Your task to perform on an android device: open sync settings in chrome Image 0: 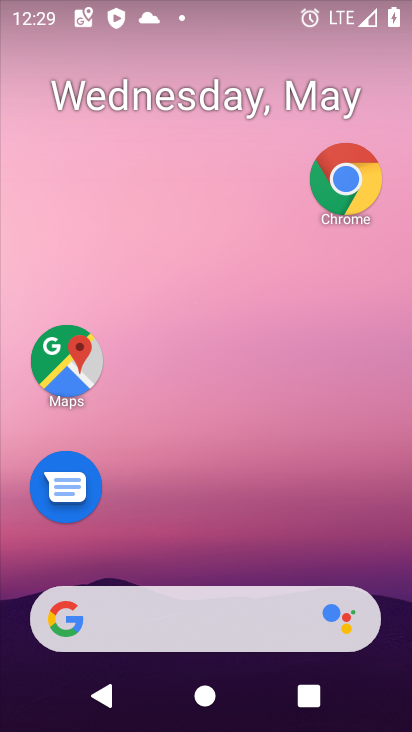
Step 0: click (289, 151)
Your task to perform on an android device: open sync settings in chrome Image 1: 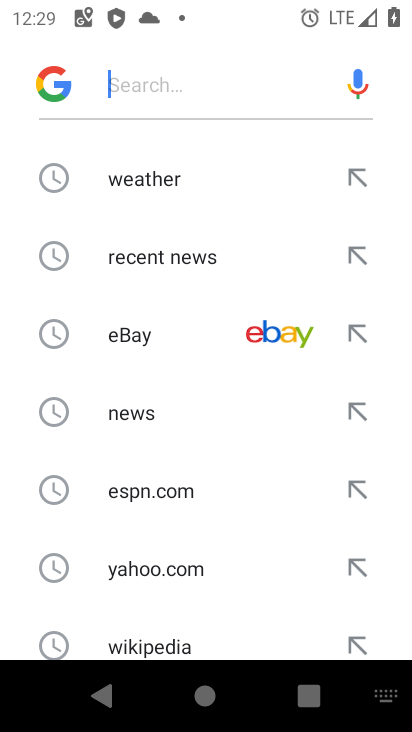
Step 1: press home button
Your task to perform on an android device: open sync settings in chrome Image 2: 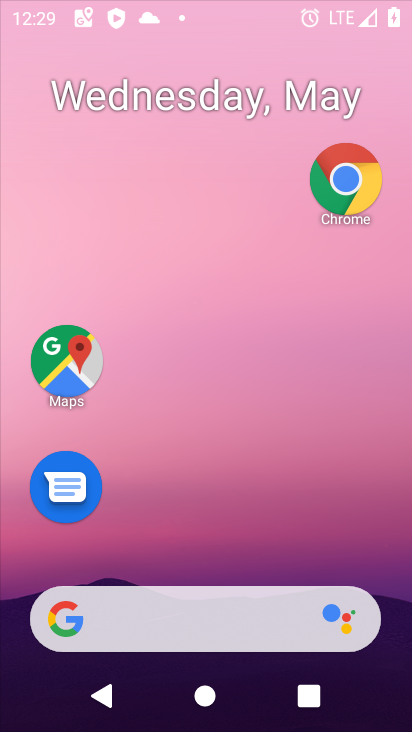
Step 2: drag from (157, 573) to (260, 97)
Your task to perform on an android device: open sync settings in chrome Image 3: 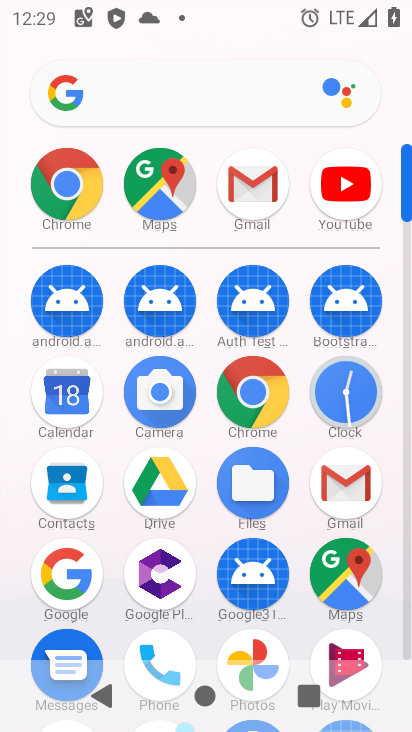
Step 3: click (60, 188)
Your task to perform on an android device: open sync settings in chrome Image 4: 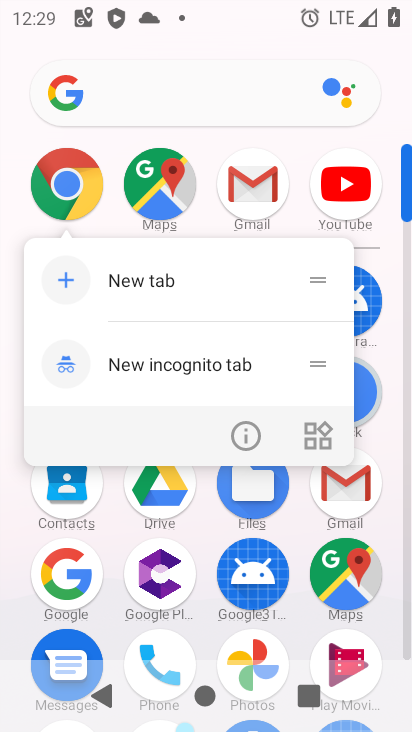
Step 4: click (240, 424)
Your task to perform on an android device: open sync settings in chrome Image 5: 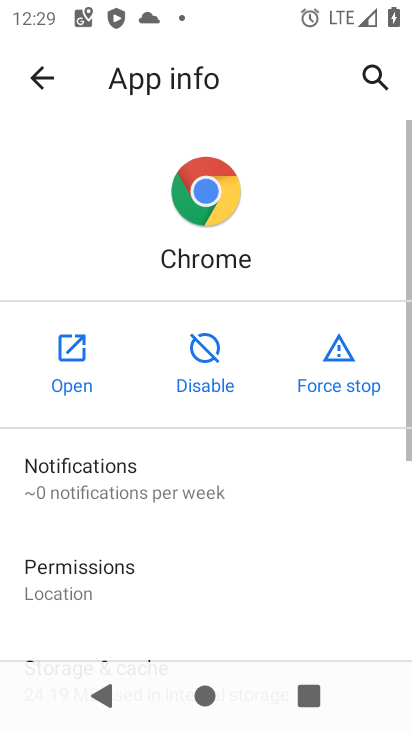
Step 5: click (73, 364)
Your task to perform on an android device: open sync settings in chrome Image 6: 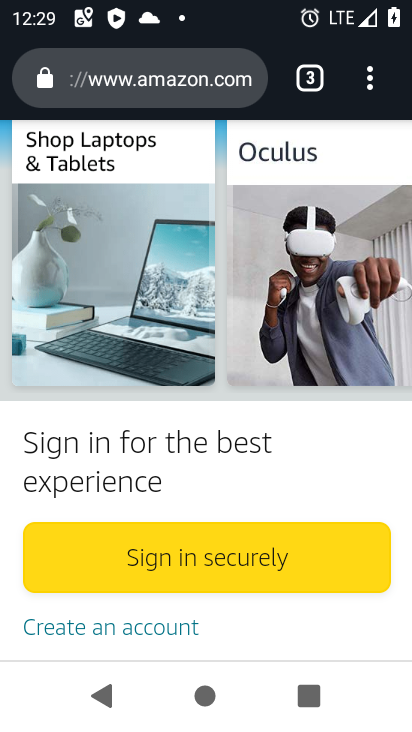
Step 6: click (365, 87)
Your task to perform on an android device: open sync settings in chrome Image 7: 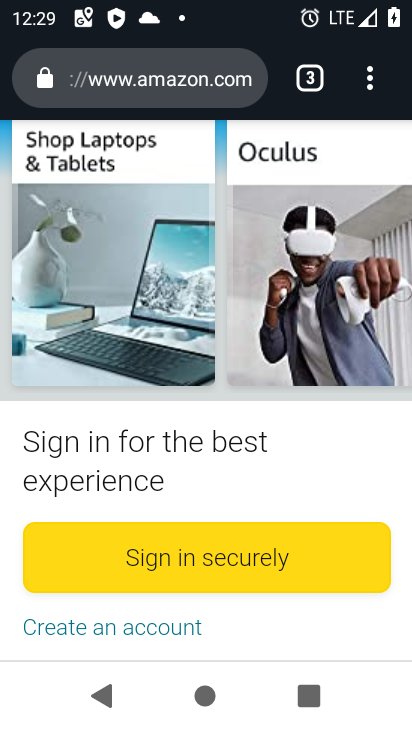
Step 7: click (368, 66)
Your task to perform on an android device: open sync settings in chrome Image 8: 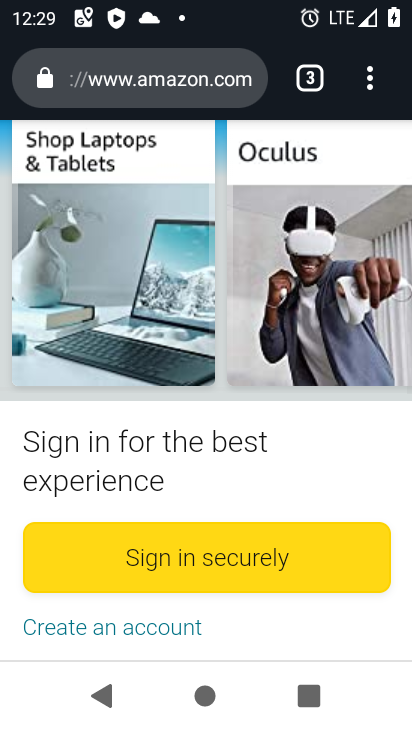
Step 8: click (369, 66)
Your task to perform on an android device: open sync settings in chrome Image 9: 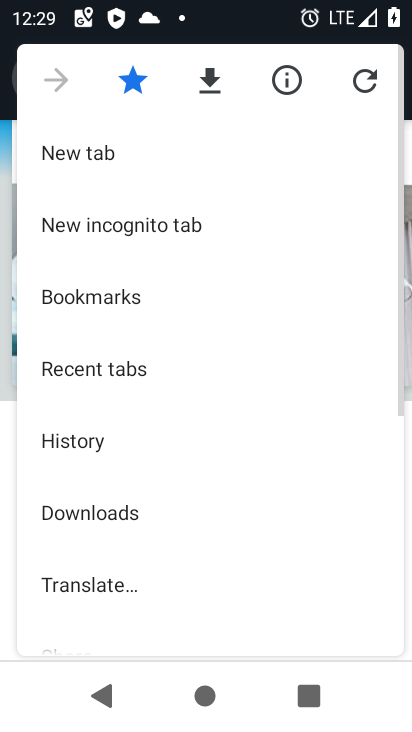
Step 9: drag from (133, 520) to (287, 79)
Your task to perform on an android device: open sync settings in chrome Image 10: 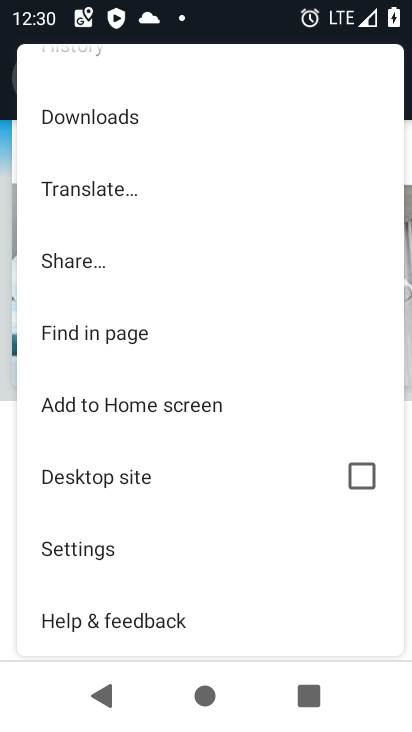
Step 10: click (141, 547)
Your task to perform on an android device: open sync settings in chrome Image 11: 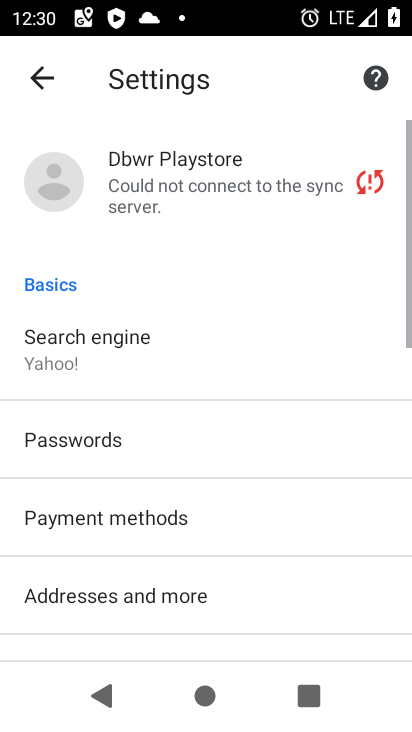
Step 11: drag from (138, 544) to (318, 60)
Your task to perform on an android device: open sync settings in chrome Image 12: 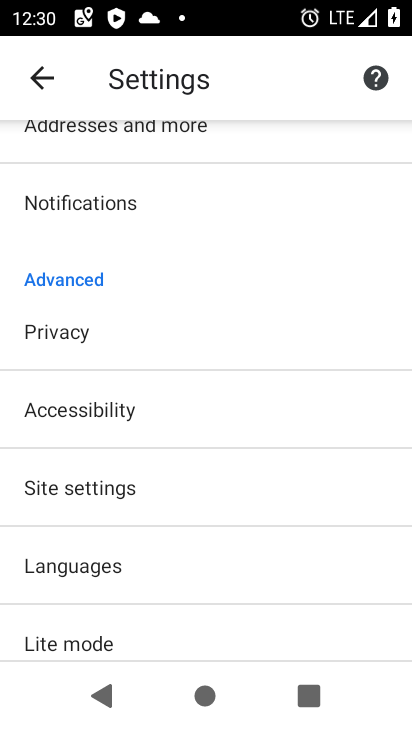
Step 12: click (145, 496)
Your task to perform on an android device: open sync settings in chrome Image 13: 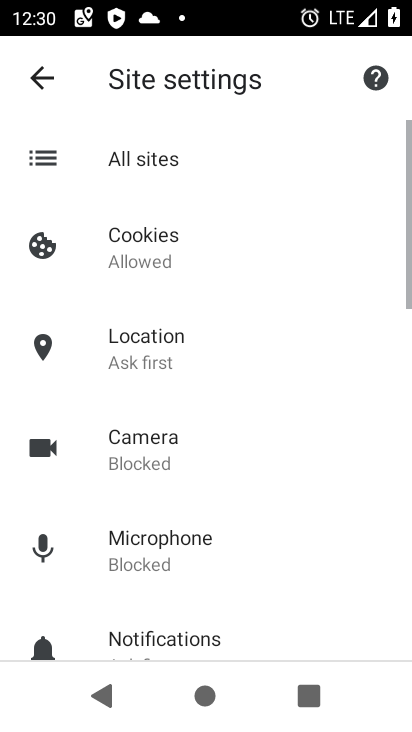
Step 13: drag from (163, 455) to (333, 58)
Your task to perform on an android device: open sync settings in chrome Image 14: 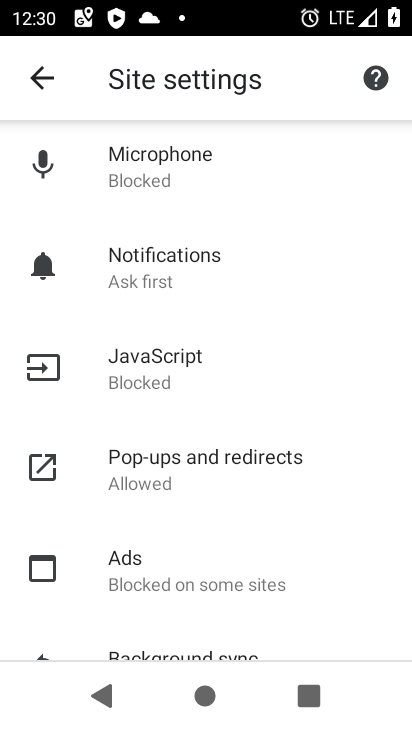
Step 14: drag from (191, 512) to (243, 222)
Your task to perform on an android device: open sync settings in chrome Image 15: 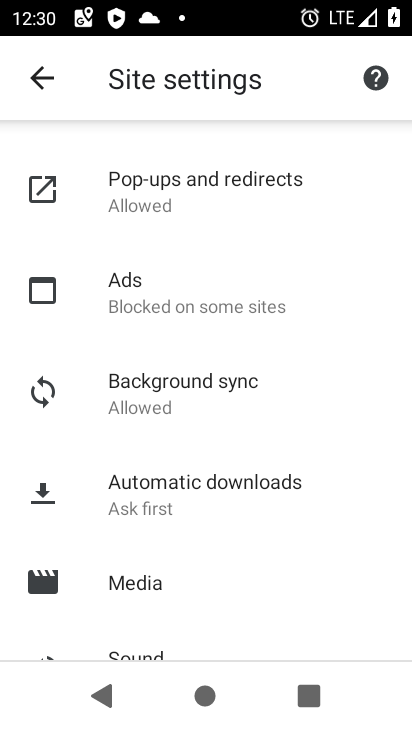
Step 15: click (239, 385)
Your task to perform on an android device: open sync settings in chrome Image 16: 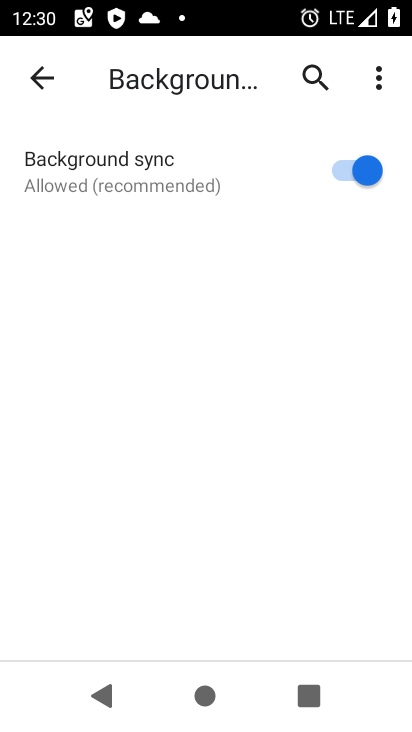
Step 16: task complete